Your task to perform on an android device: move a message to another label in the gmail app Image 0: 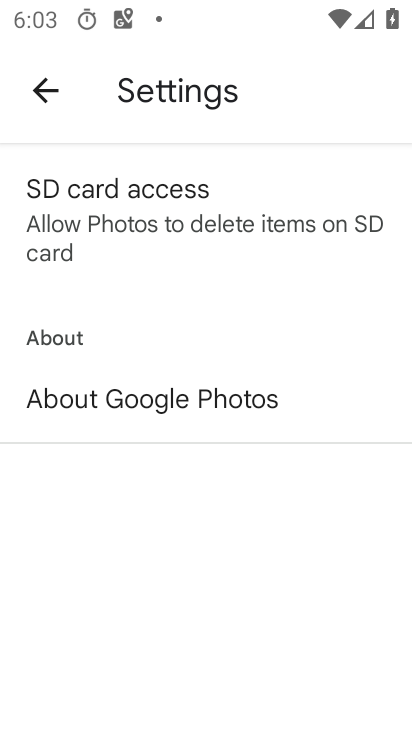
Step 0: press home button
Your task to perform on an android device: move a message to another label in the gmail app Image 1: 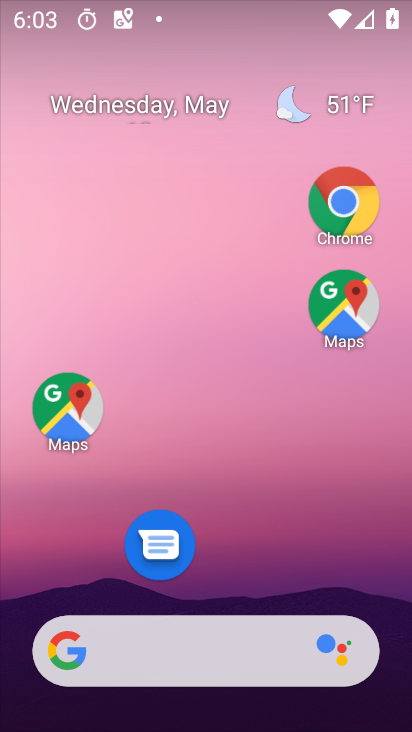
Step 1: drag from (285, 530) to (192, 1)
Your task to perform on an android device: move a message to another label in the gmail app Image 2: 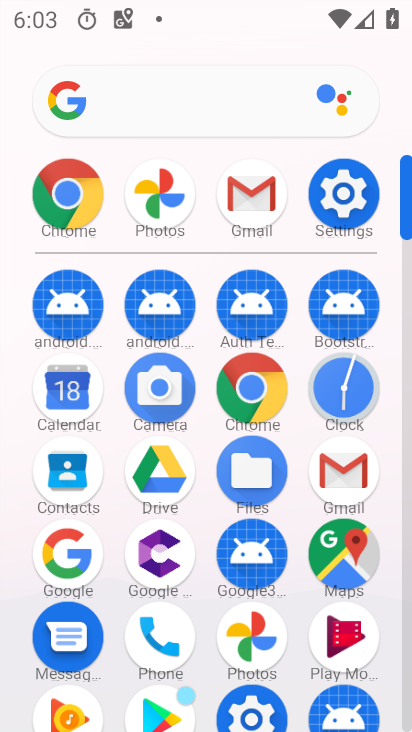
Step 2: click (241, 202)
Your task to perform on an android device: move a message to another label in the gmail app Image 3: 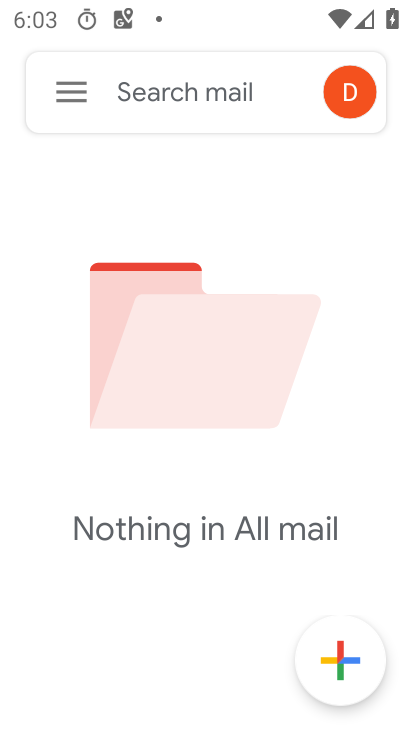
Step 3: click (54, 103)
Your task to perform on an android device: move a message to another label in the gmail app Image 4: 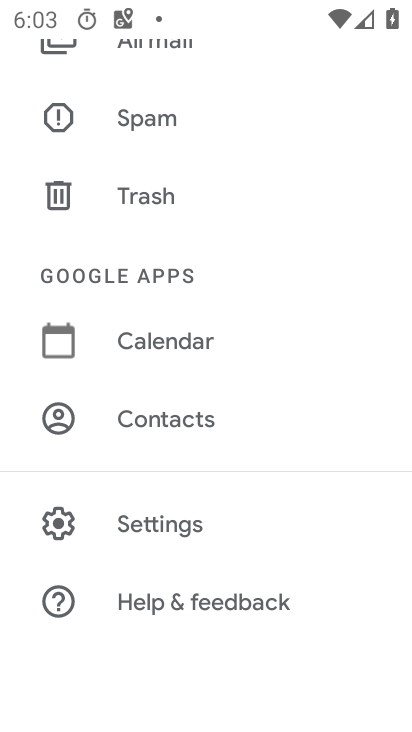
Step 4: drag from (196, 156) to (158, 610)
Your task to perform on an android device: move a message to another label in the gmail app Image 5: 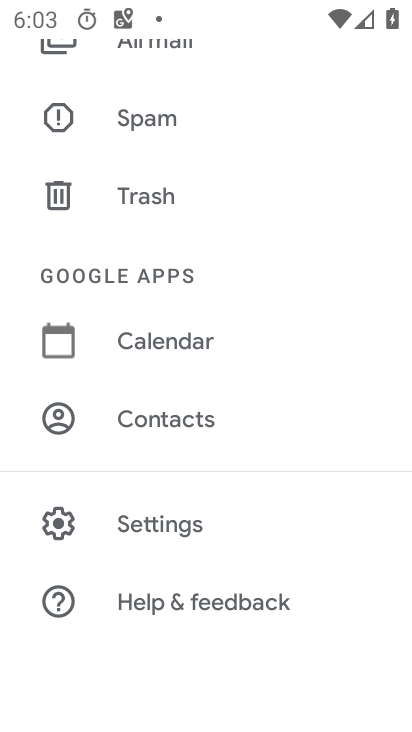
Step 5: drag from (173, 152) to (170, 362)
Your task to perform on an android device: move a message to another label in the gmail app Image 6: 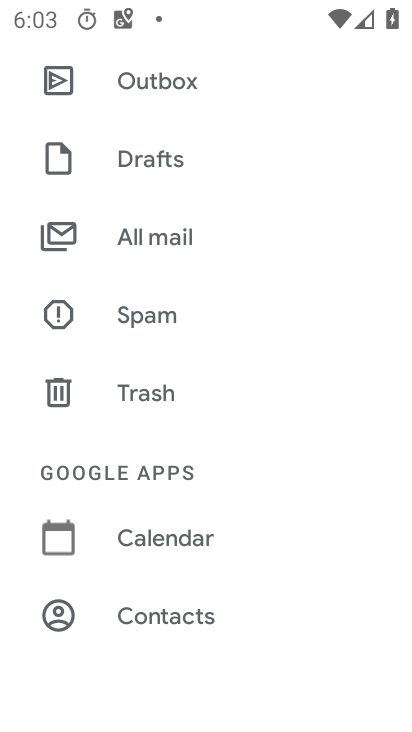
Step 6: click (175, 236)
Your task to perform on an android device: move a message to another label in the gmail app Image 7: 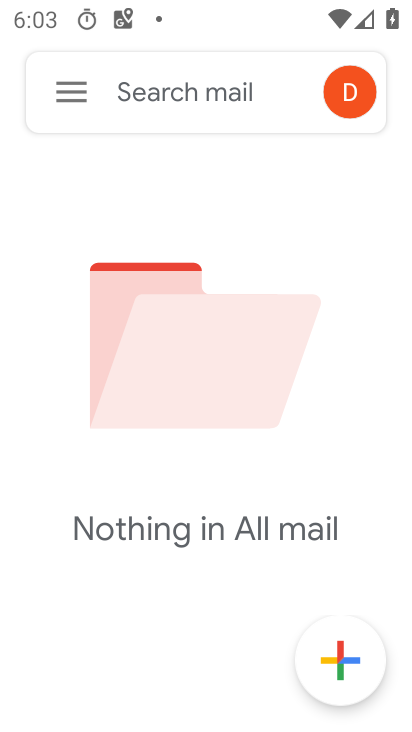
Step 7: task complete